Your task to perform on an android device: What's on my calendar tomorrow? Image 0: 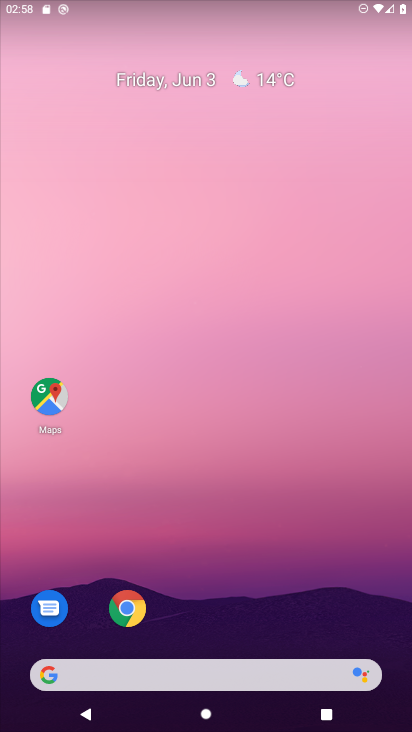
Step 0: drag from (317, 575) to (246, 112)
Your task to perform on an android device: What's on my calendar tomorrow? Image 1: 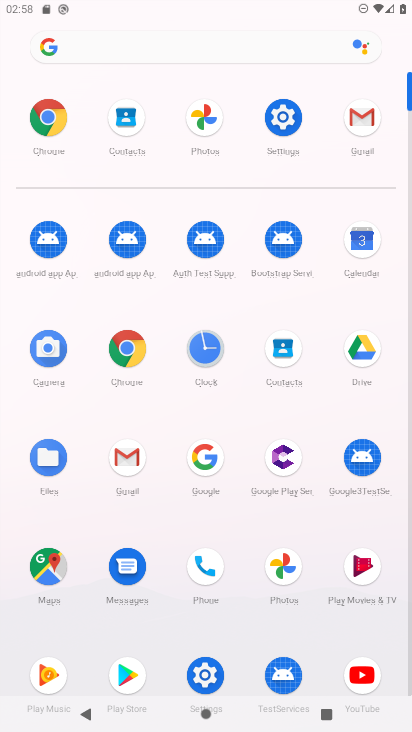
Step 1: click (361, 248)
Your task to perform on an android device: What's on my calendar tomorrow? Image 2: 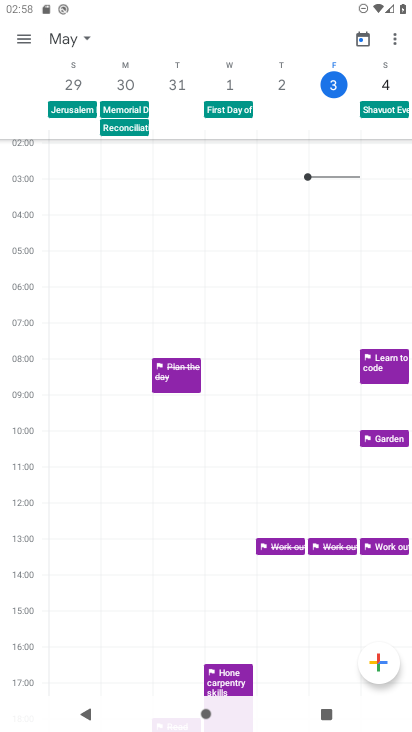
Step 2: click (389, 87)
Your task to perform on an android device: What's on my calendar tomorrow? Image 3: 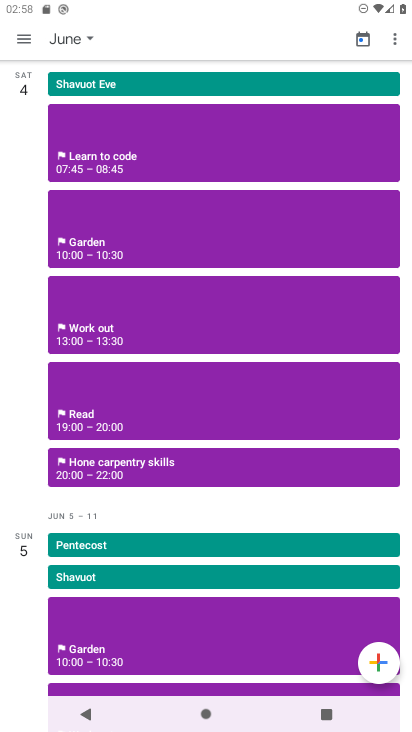
Step 3: task complete